Your task to perform on an android device: turn on sleep mode Image 0: 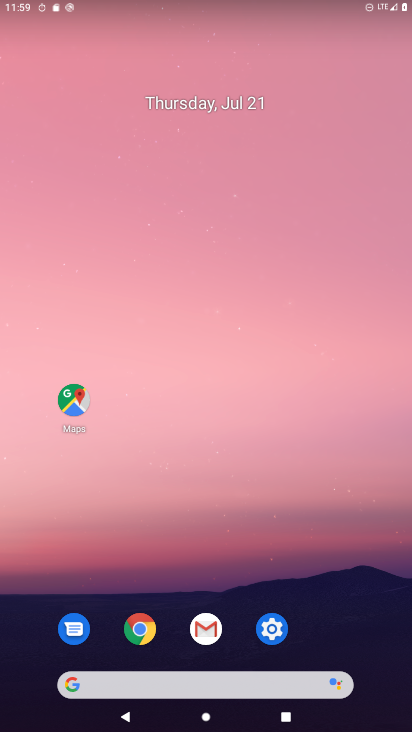
Step 0: press home button
Your task to perform on an android device: turn on sleep mode Image 1: 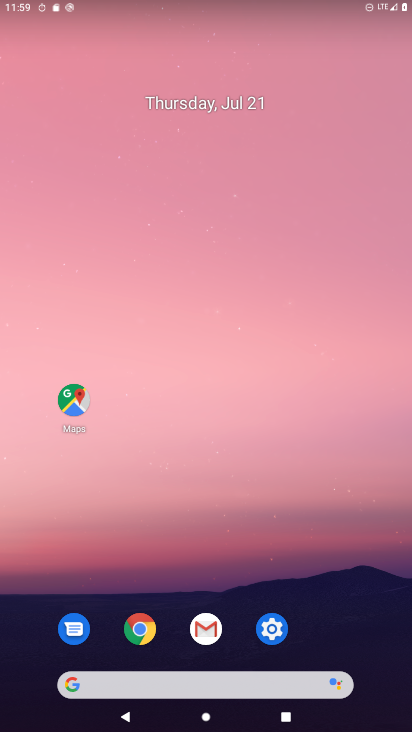
Step 1: click (272, 634)
Your task to perform on an android device: turn on sleep mode Image 2: 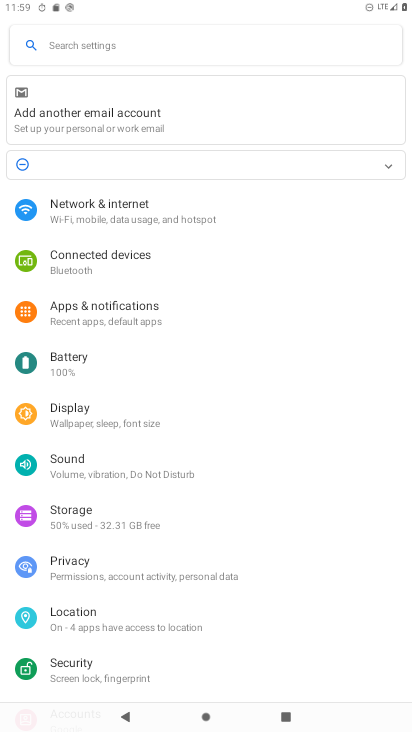
Step 2: click (101, 47)
Your task to perform on an android device: turn on sleep mode Image 3: 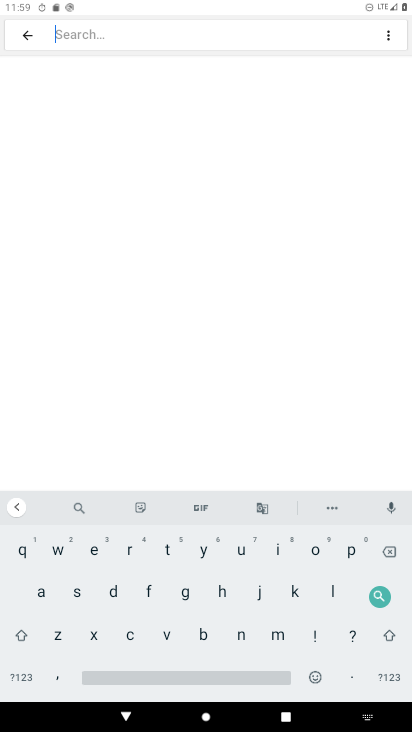
Step 3: click (75, 591)
Your task to perform on an android device: turn on sleep mode Image 4: 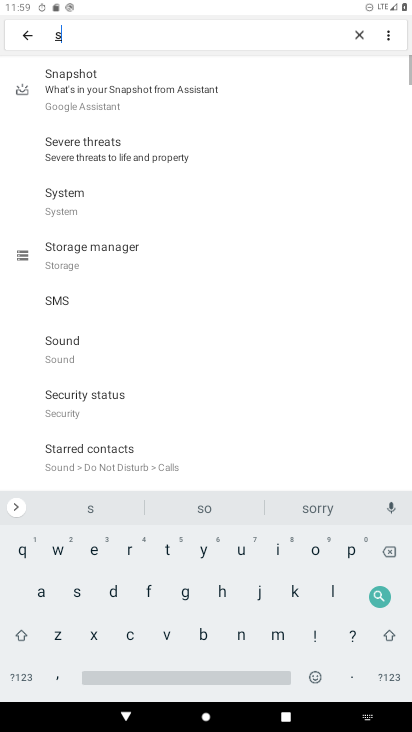
Step 4: click (337, 600)
Your task to perform on an android device: turn on sleep mode Image 5: 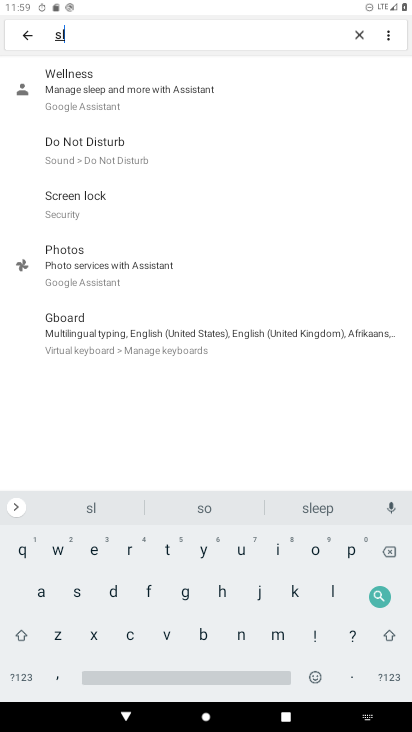
Step 5: click (105, 149)
Your task to perform on an android device: turn on sleep mode Image 6: 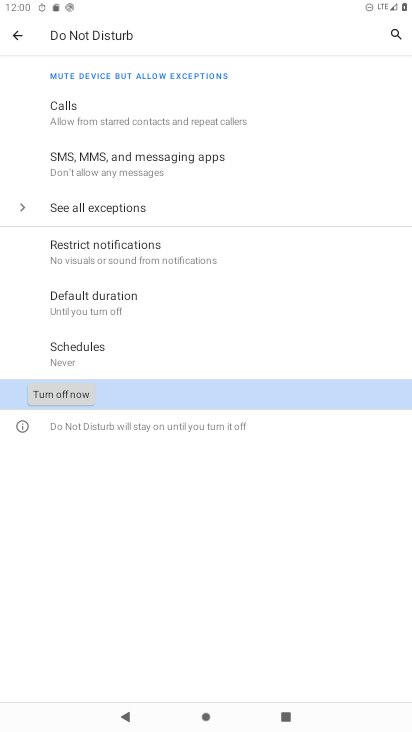
Step 6: click (70, 393)
Your task to perform on an android device: turn on sleep mode Image 7: 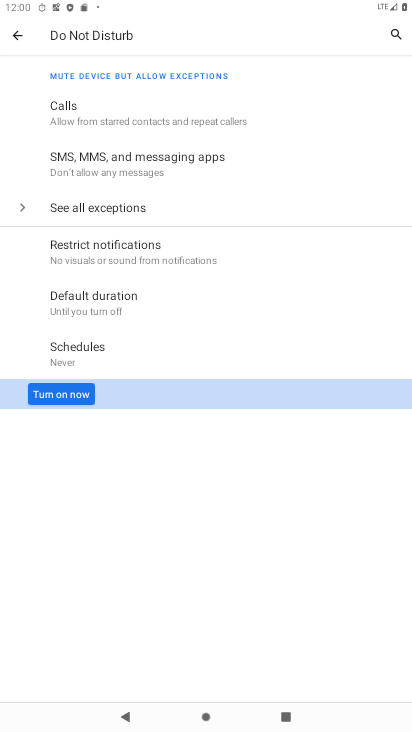
Step 7: click (69, 394)
Your task to perform on an android device: turn on sleep mode Image 8: 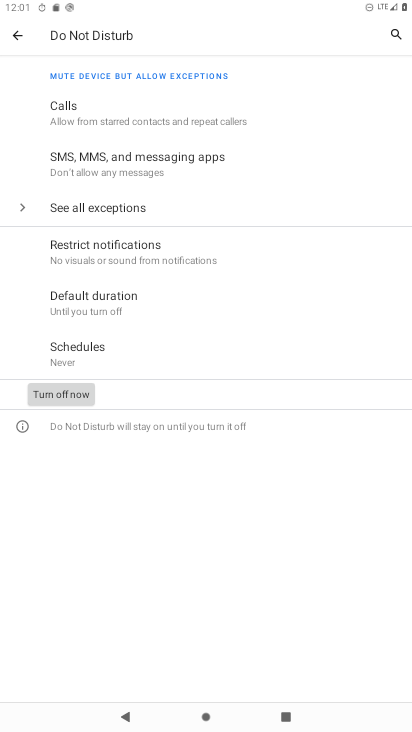
Step 8: task complete